Your task to perform on an android device: Open privacy settings Image 0: 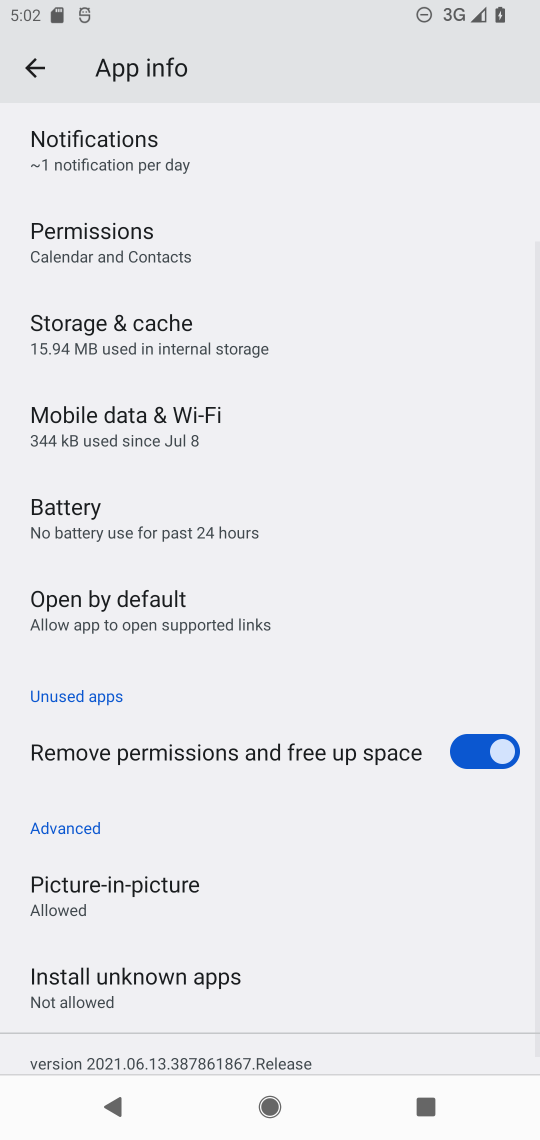
Step 0: press home button
Your task to perform on an android device: Open privacy settings Image 1: 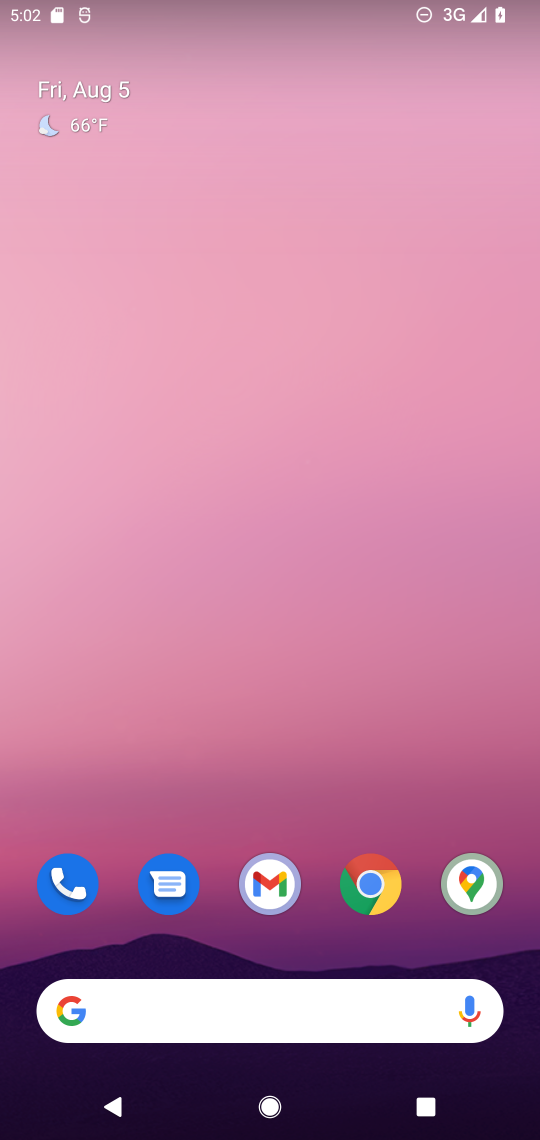
Step 1: drag from (523, 979) to (339, 72)
Your task to perform on an android device: Open privacy settings Image 2: 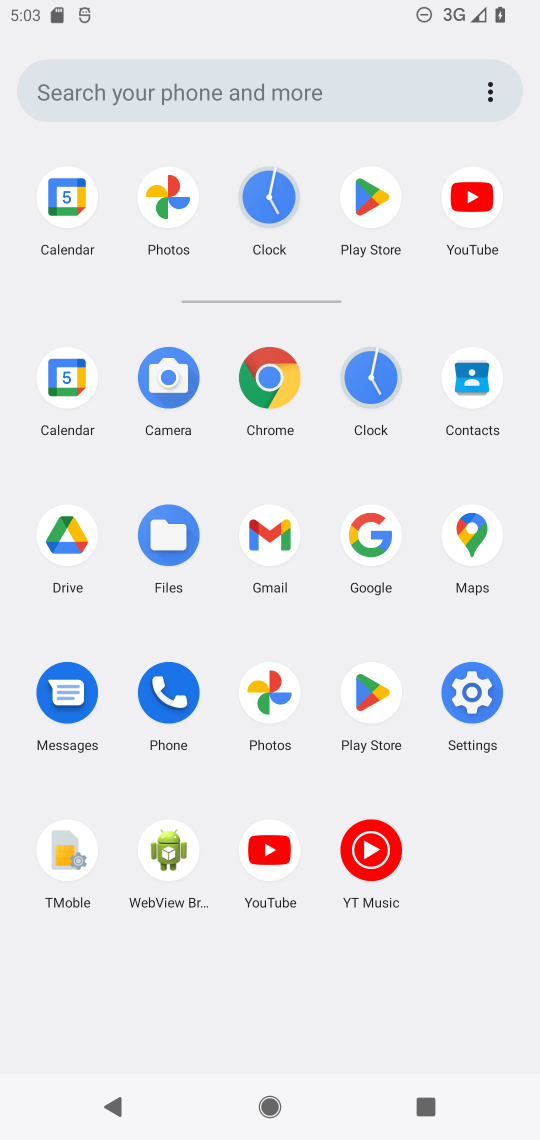
Step 2: click (465, 713)
Your task to perform on an android device: Open privacy settings Image 3: 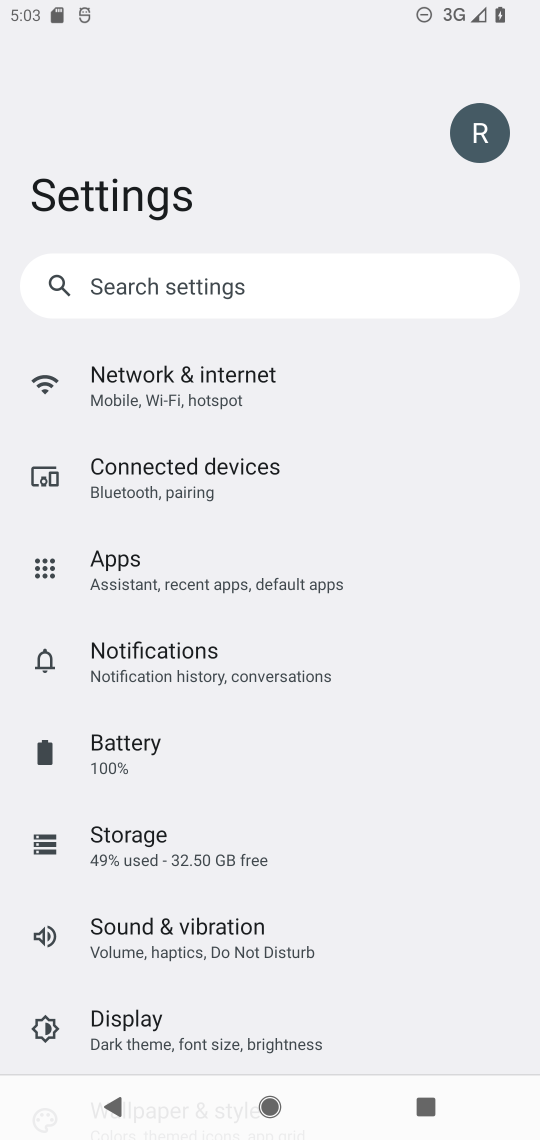
Step 3: drag from (325, 1022) to (188, 167)
Your task to perform on an android device: Open privacy settings Image 4: 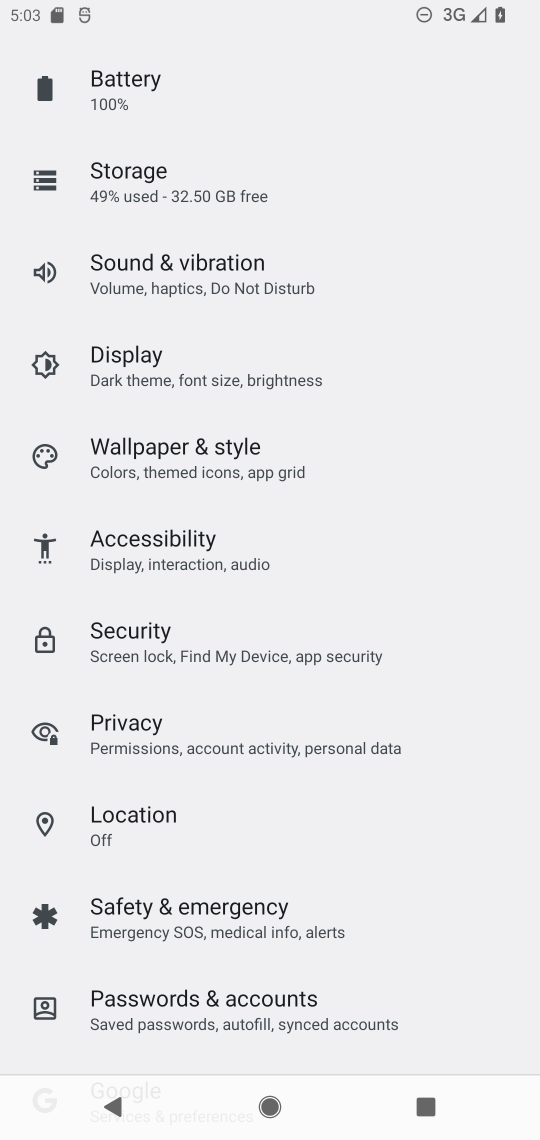
Step 4: click (122, 745)
Your task to perform on an android device: Open privacy settings Image 5: 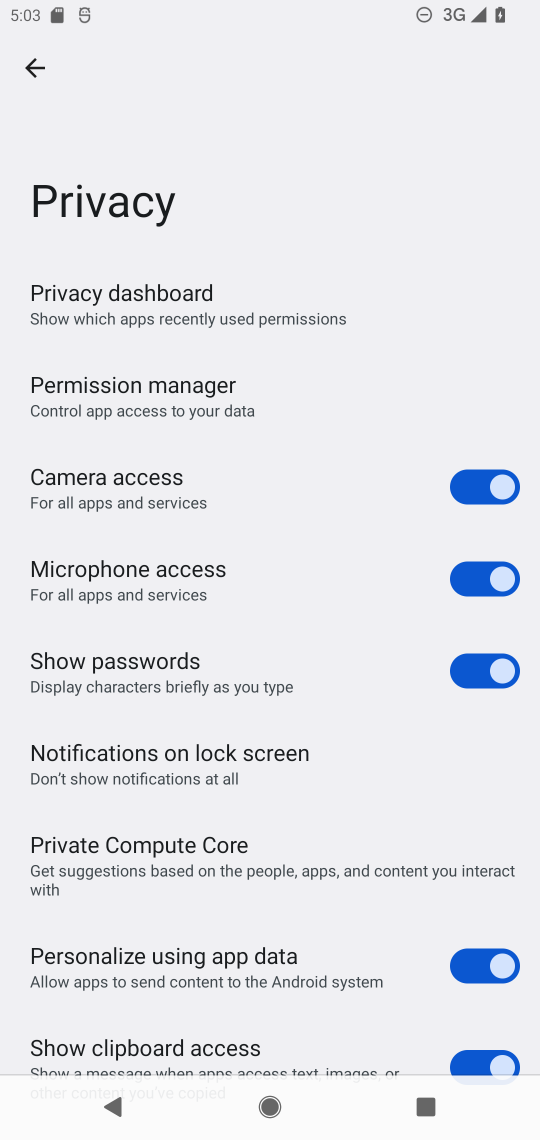
Step 5: task complete